Your task to perform on an android device: toggle pop-ups in chrome Image 0: 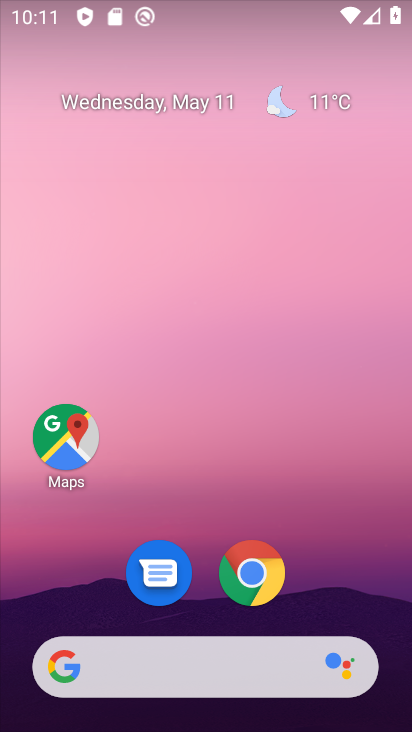
Step 0: click (229, 556)
Your task to perform on an android device: toggle pop-ups in chrome Image 1: 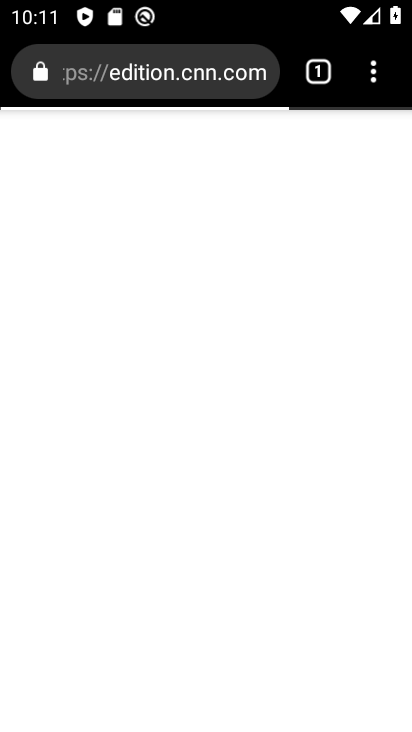
Step 1: click (369, 72)
Your task to perform on an android device: toggle pop-ups in chrome Image 2: 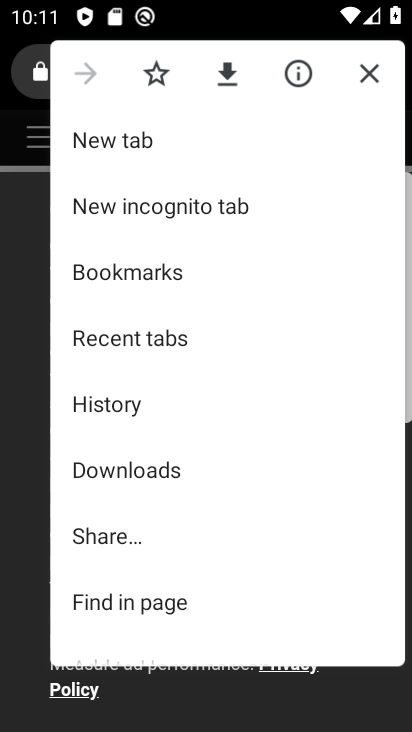
Step 2: drag from (177, 521) to (234, 106)
Your task to perform on an android device: toggle pop-ups in chrome Image 3: 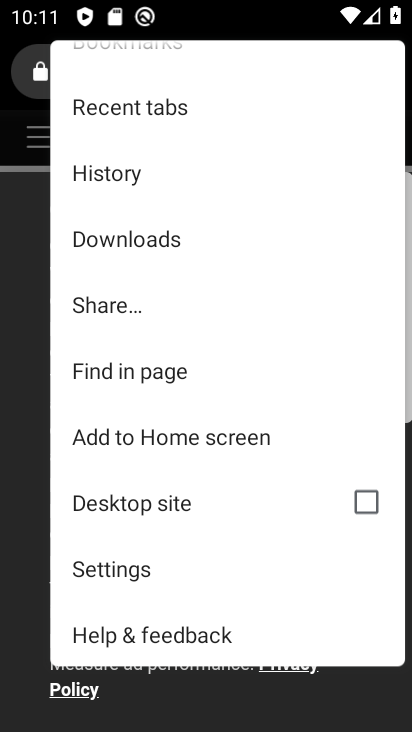
Step 3: drag from (200, 511) to (220, 133)
Your task to perform on an android device: toggle pop-ups in chrome Image 4: 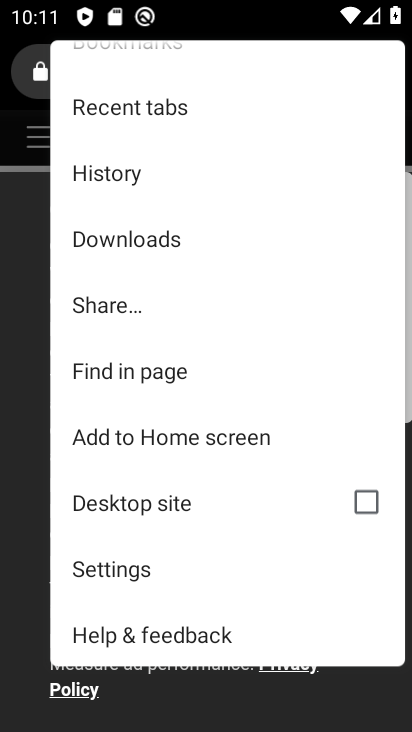
Step 4: click (129, 573)
Your task to perform on an android device: toggle pop-ups in chrome Image 5: 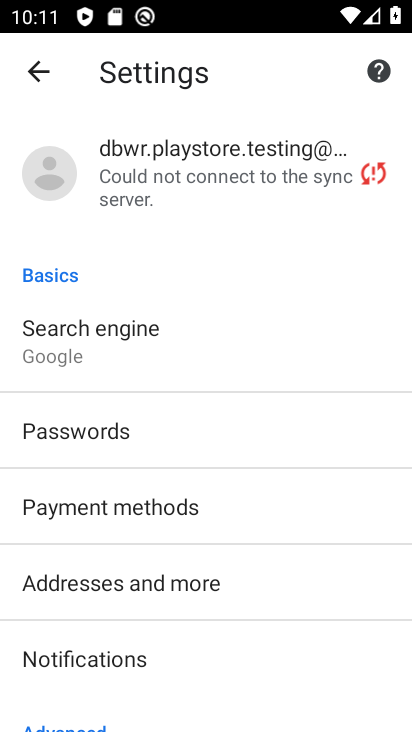
Step 5: drag from (115, 502) to (125, 26)
Your task to perform on an android device: toggle pop-ups in chrome Image 6: 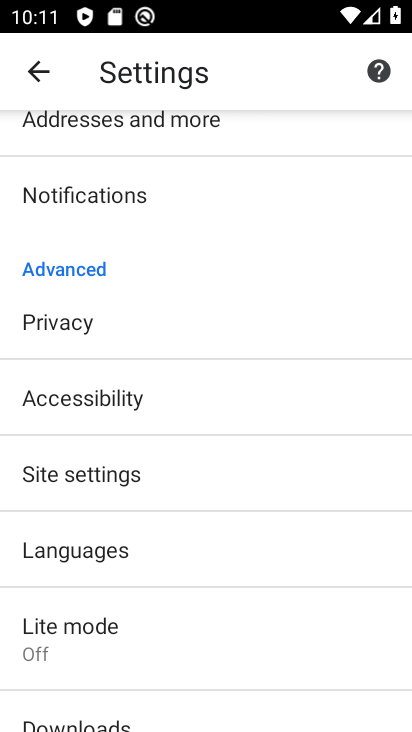
Step 6: click (171, 483)
Your task to perform on an android device: toggle pop-ups in chrome Image 7: 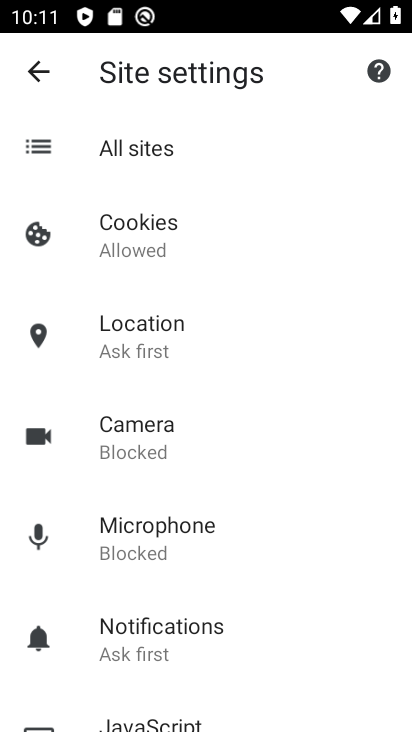
Step 7: drag from (186, 649) to (221, 255)
Your task to perform on an android device: toggle pop-ups in chrome Image 8: 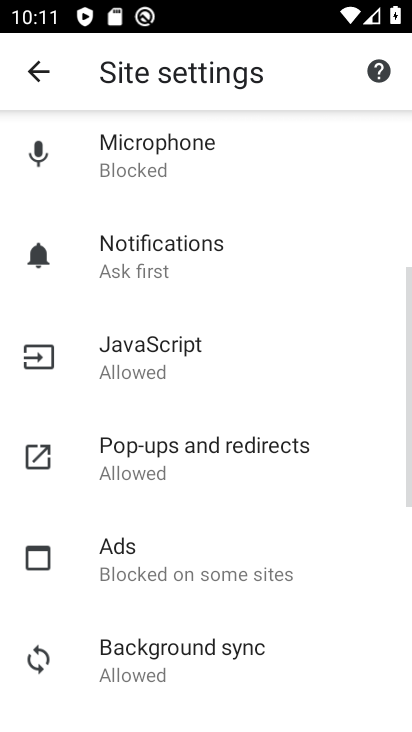
Step 8: click (205, 455)
Your task to perform on an android device: toggle pop-ups in chrome Image 9: 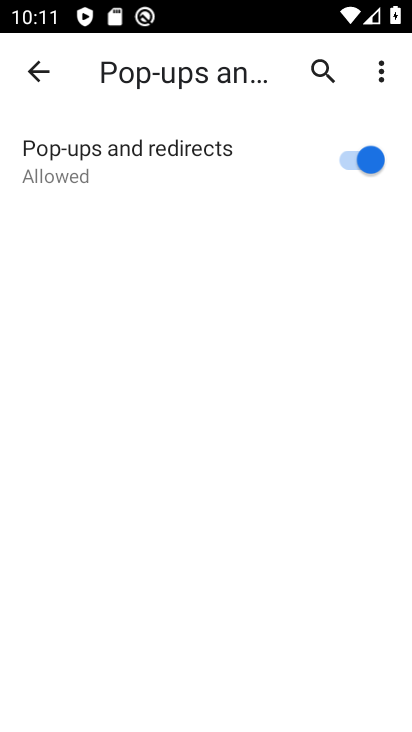
Step 9: task complete